Your task to perform on an android device: Is it going to rain this weekend? Image 0: 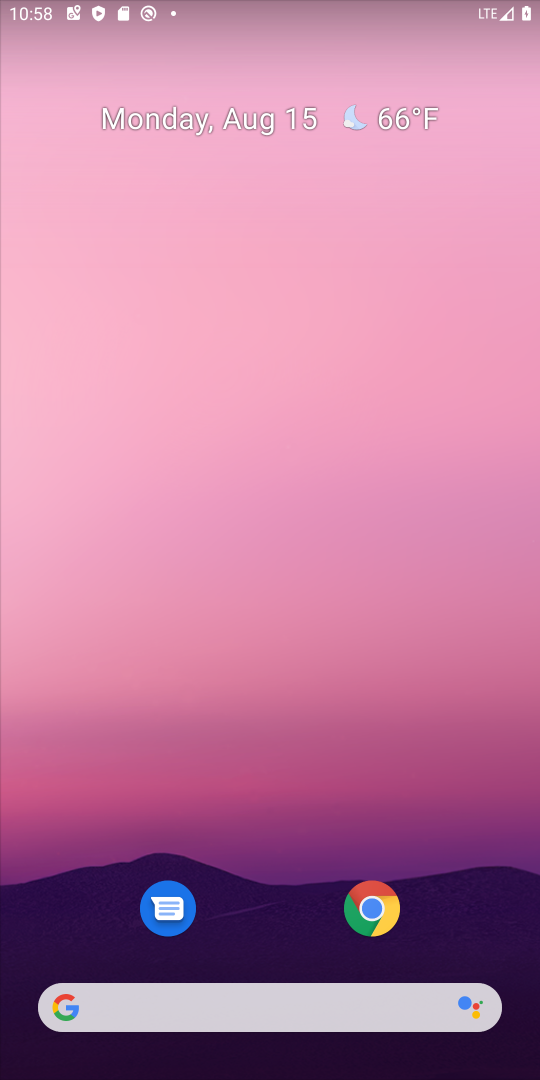
Step 0: click (409, 103)
Your task to perform on an android device: Is it going to rain this weekend? Image 1: 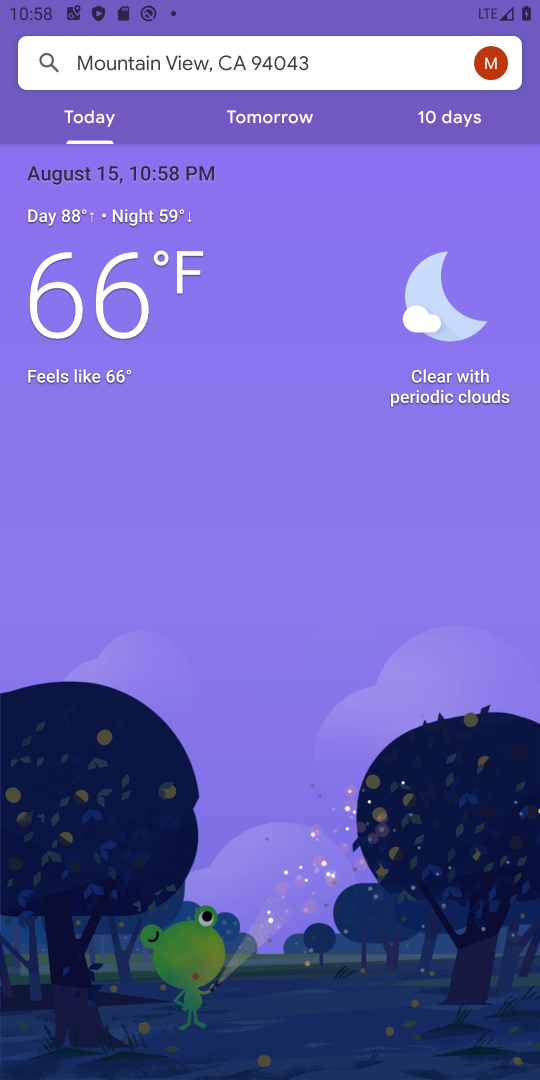
Step 1: click (461, 115)
Your task to perform on an android device: Is it going to rain this weekend? Image 2: 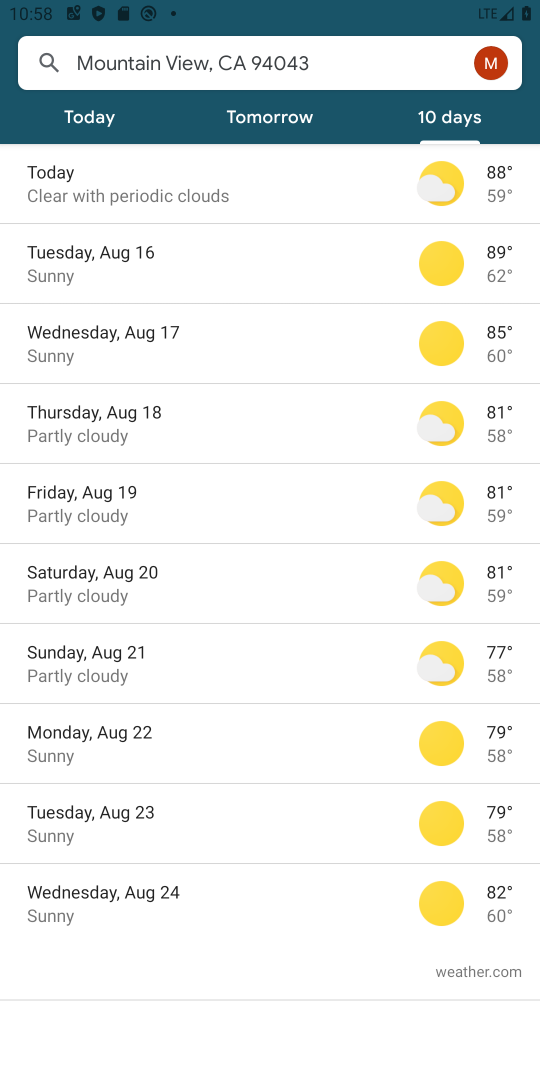
Step 2: click (348, 672)
Your task to perform on an android device: Is it going to rain this weekend? Image 3: 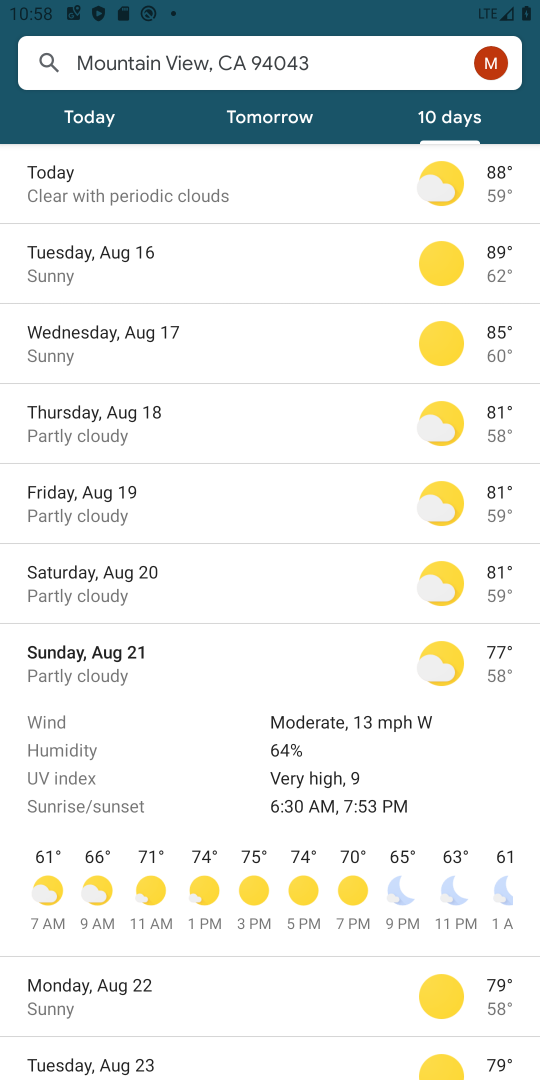
Step 3: task complete